Your task to perform on an android device: open the mobile data screen to see how much data has been used Image 0: 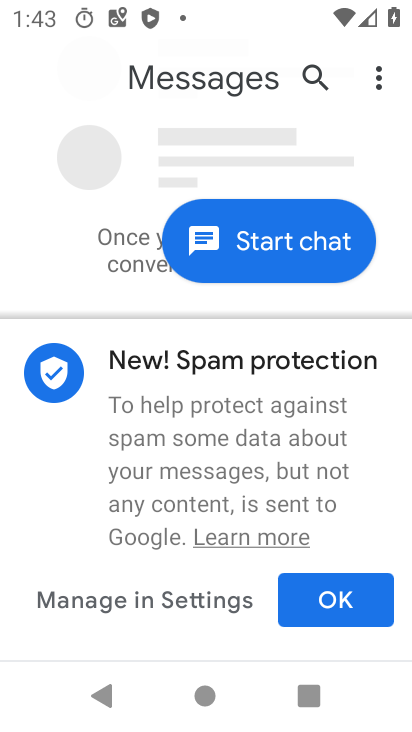
Step 0: press home button
Your task to perform on an android device: open the mobile data screen to see how much data has been used Image 1: 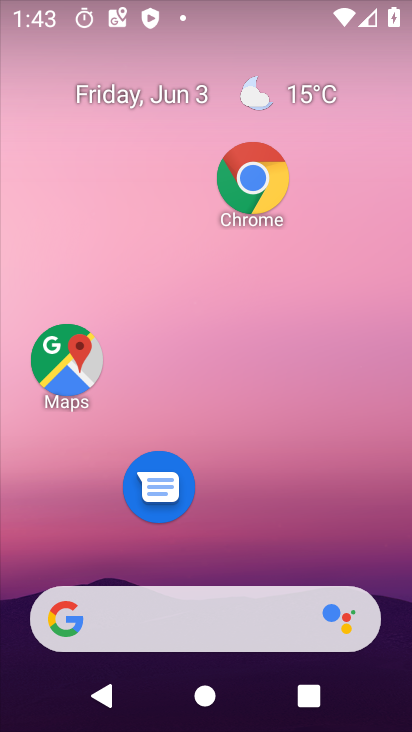
Step 1: drag from (230, 565) to (239, 85)
Your task to perform on an android device: open the mobile data screen to see how much data has been used Image 2: 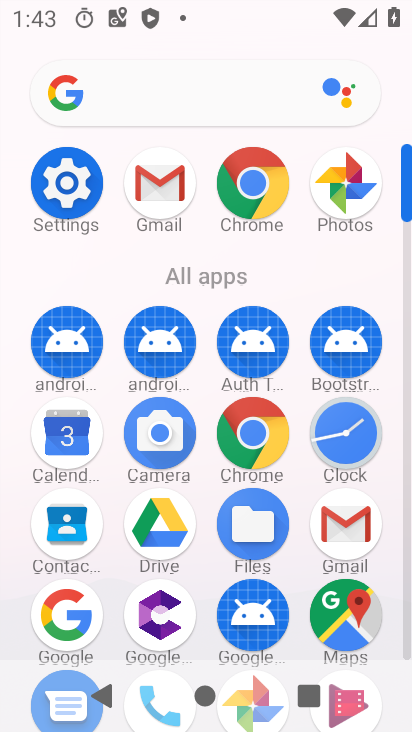
Step 2: click (69, 172)
Your task to perform on an android device: open the mobile data screen to see how much data has been used Image 3: 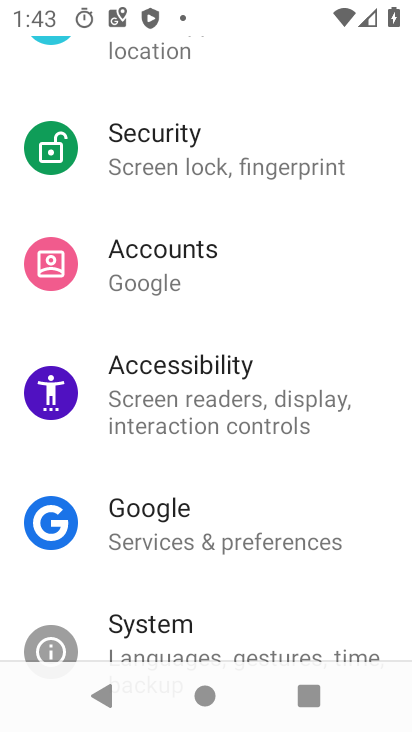
Step 3: drag from (203, 121) to (217, 578)
Your task to perform on an android device: open the mobile data screen to see how much data has been used Image 4: 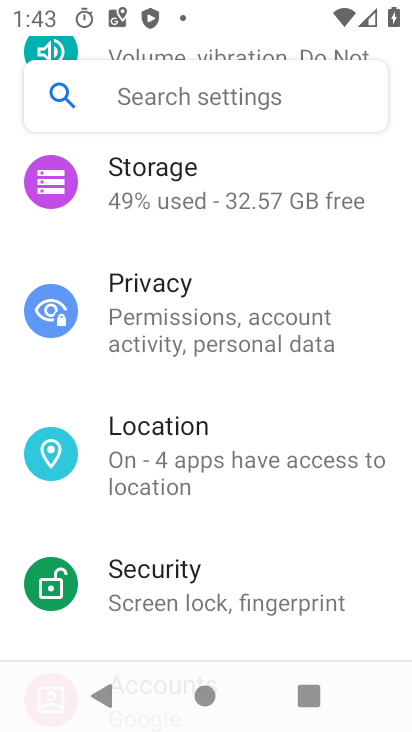
Step 4: drag from (196, 174) to (219, 728)
Your task to perform on an android device: open the mobile data screen to see how much data has been used Image 5: 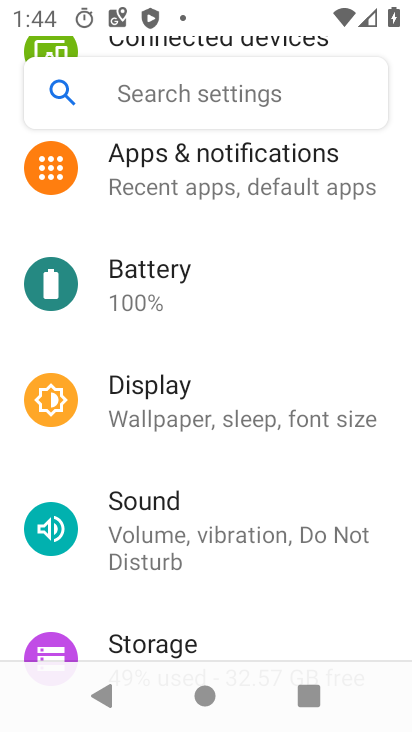
Step 5: drag from (191, 172) to (236, 670)
Your task to perform on an android device: open the mobile data screen to see how much data has been used Image 6: 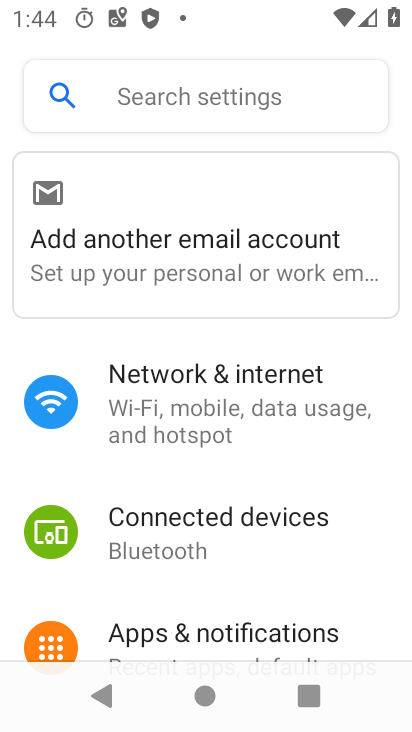
Step 6: click (224, 386)
Your task to perform on an android device: open the mobile data screen to see how much data has been used Image 7: 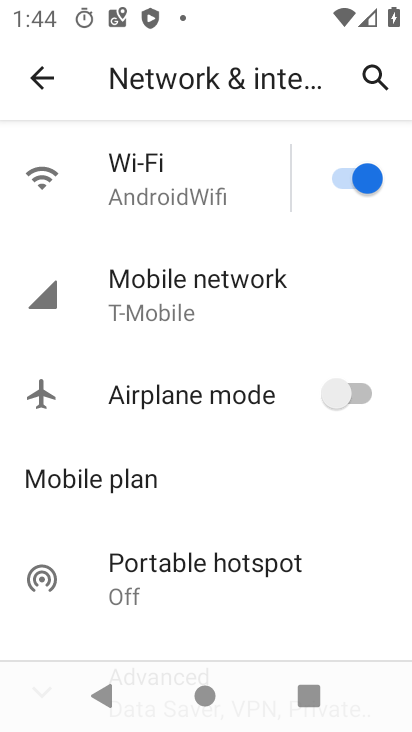
Step 7: click (191, 296)
Your task to perform on an android device: open the mobile data screen to see how much data has been used Image 8: 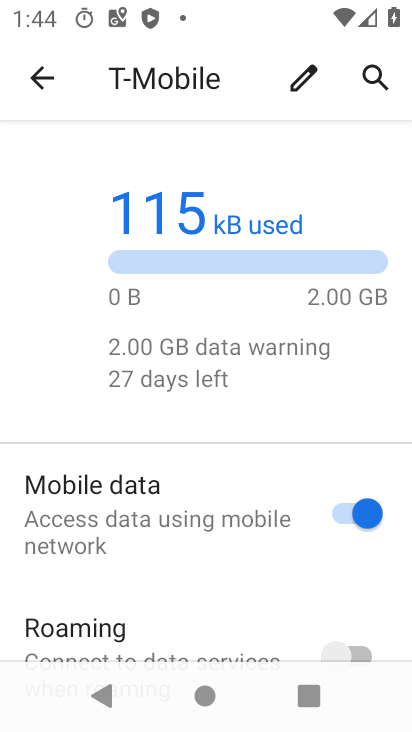
Step 8: drag from (207, 500) to (215, 342)
Your task to perform on an android device: open the mobile data screen to see how much data has been used Image 9: 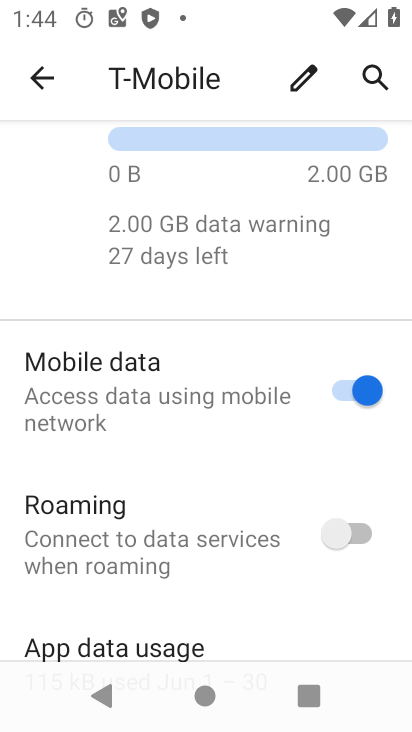
Step 9: click (225, 646)
Your task to perform on an android device: open the mobile data screen to see how much data has been used Image 10: 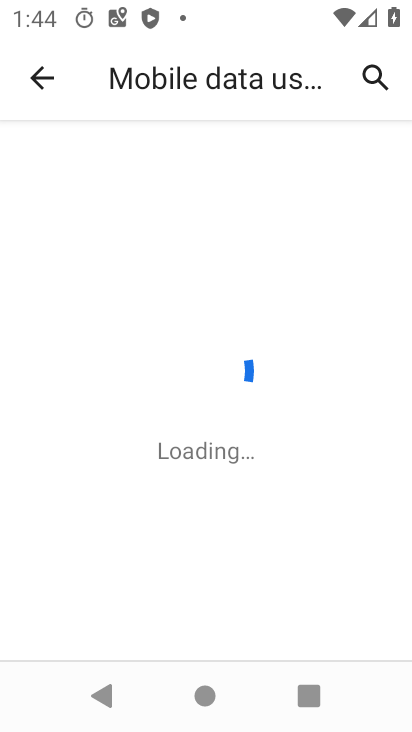
Step 10: task complete